Your task to perform on an android device: Open Google Maps Image 0: 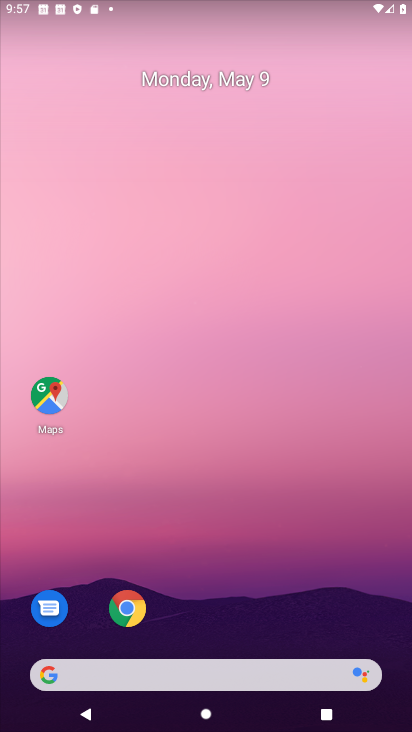
Step 0: drag from (325, 632) to (369, 233)
Your task to perform on an android device: Open Google Maps Image 1: 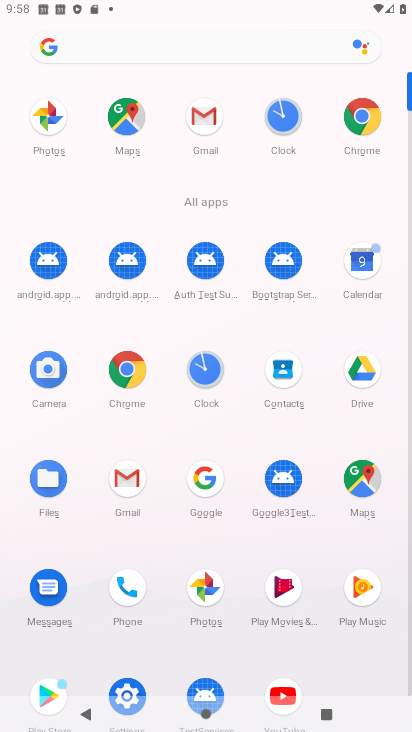
Step 1: click (409, 74)
Your task to perform on an android device: Open Google Maps Image 2: 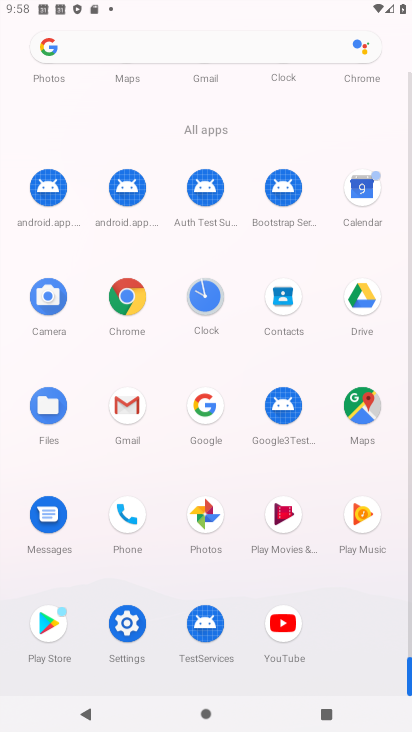
Step 2: drag from (411, 239) to (253, 228)
Your task to perform on an android device: Open Google Maps Image 3: 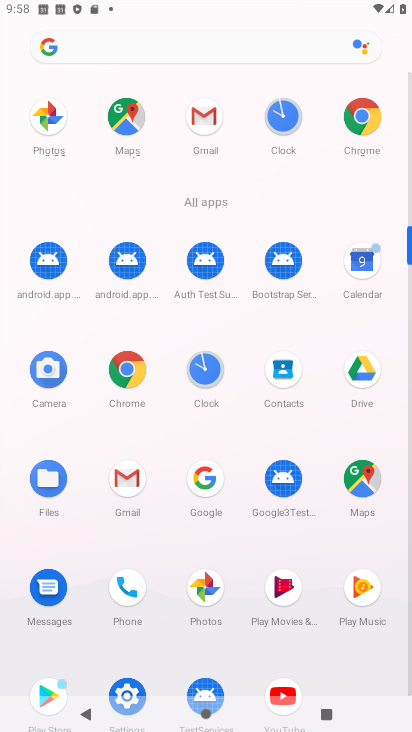
Step 3: click (214, 479)
Your task to perform on an android device: Open Google Maps Image 4: 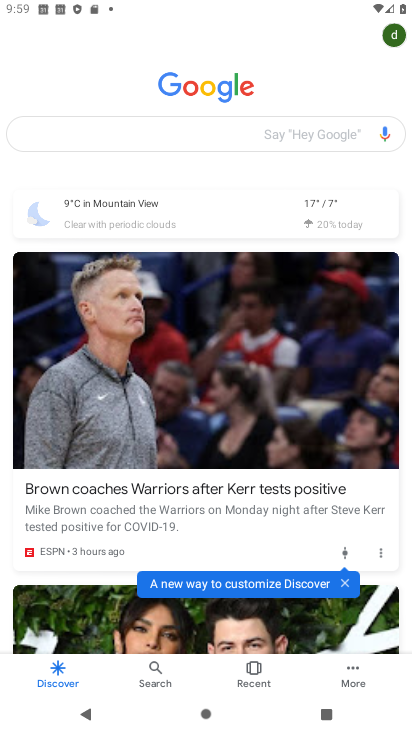
Step 4: task complete